Your task to perform on an android device: open wifi settings Image 0: 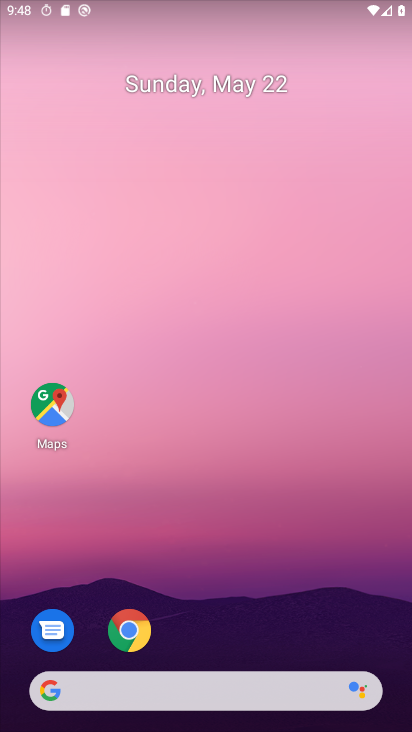
Step 0: drag from (380, 659) to (331, 199)
Your task to perform on an android device: open wifi settings Image 1: 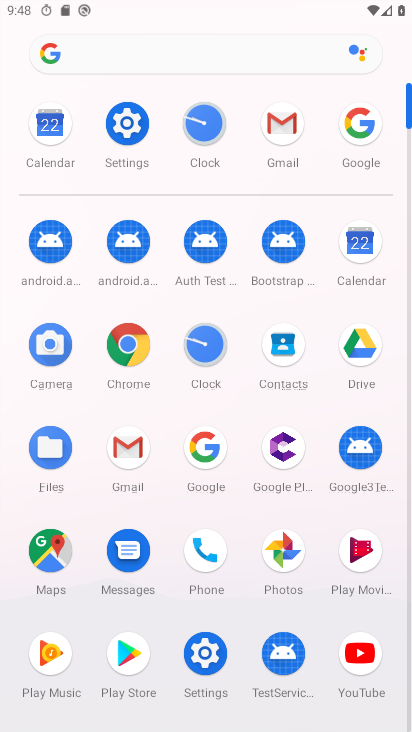
Step 1: click (134, 123)
Your task to perform on an android device: open wifi settings Image 2: 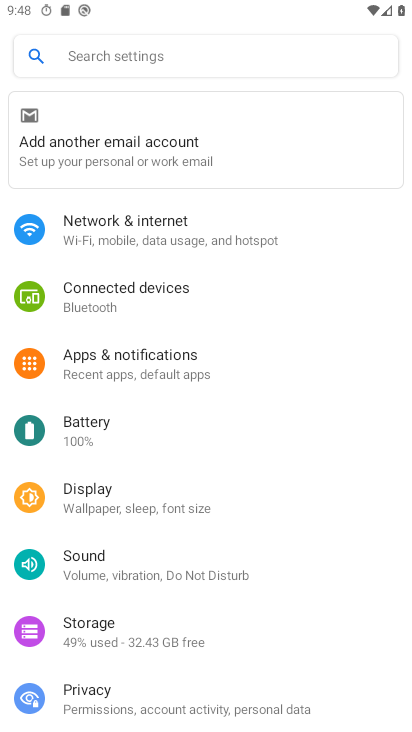
Step 2: click (95, 232)
Your task to perform on an android device: open wifi settings Image 3: 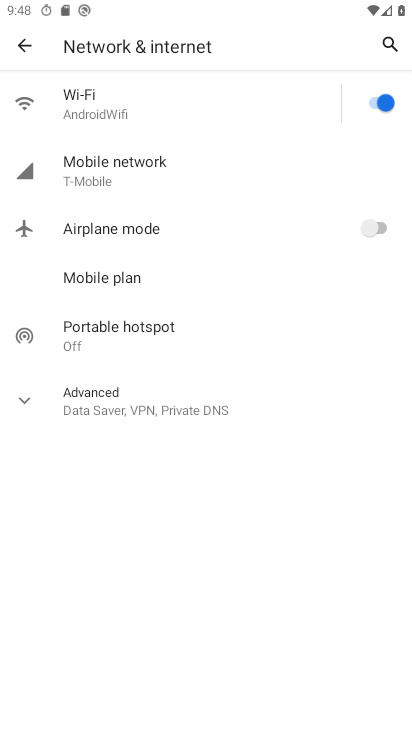
Step 3: click (159, 108)
Your task to perform on an android device: open wifi settings Image 4: 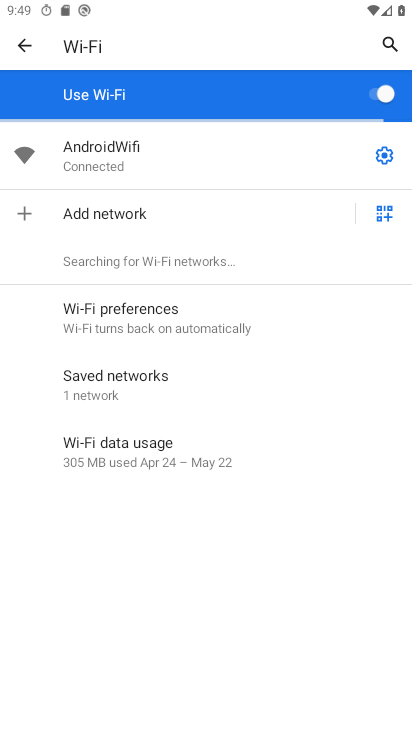
Step 4: click (251, 166)
Your task to perform on an android device: open wifi settings Image 5: 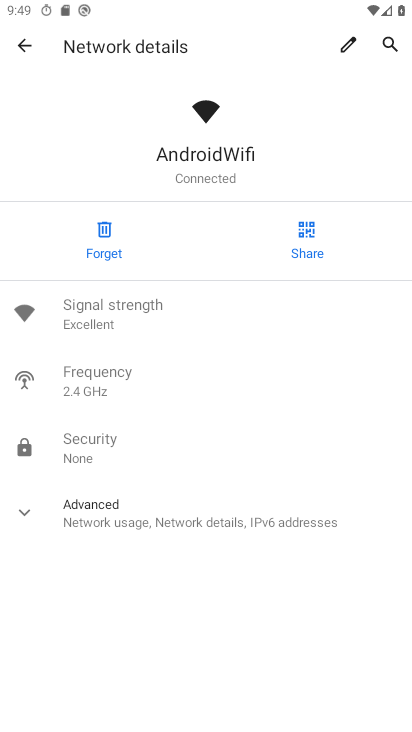
Step 5: task complete